Your task to perform on an android device: Go to privacy settings Image 0: 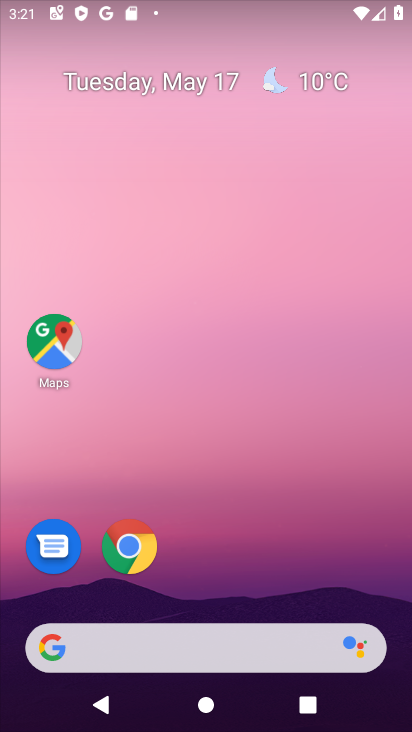
Step 0: drag from (205, 596) to (280, 188)
Your task to perform on an android device: Go to privacy settings Image 1: 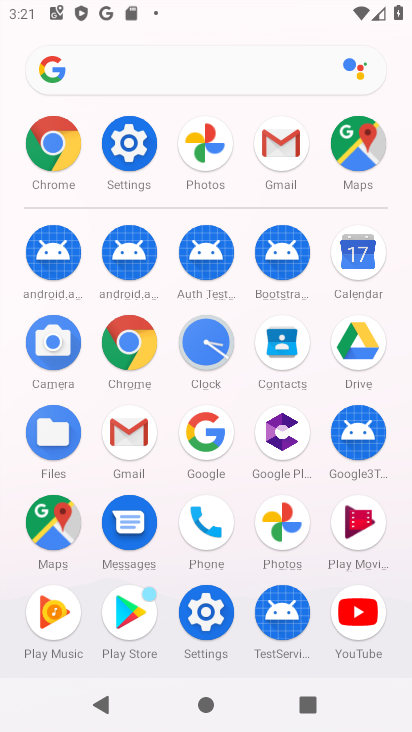
Step 1: click (207, 617)
Your task to perform on an android device: Go to privacy settings Image 2: 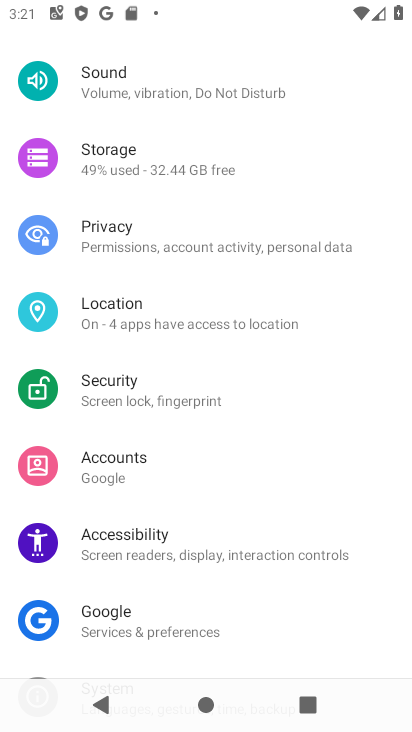
Step 2: click (156, 247)
Your task to perform on an android device: Go to privacy settings Image 3: 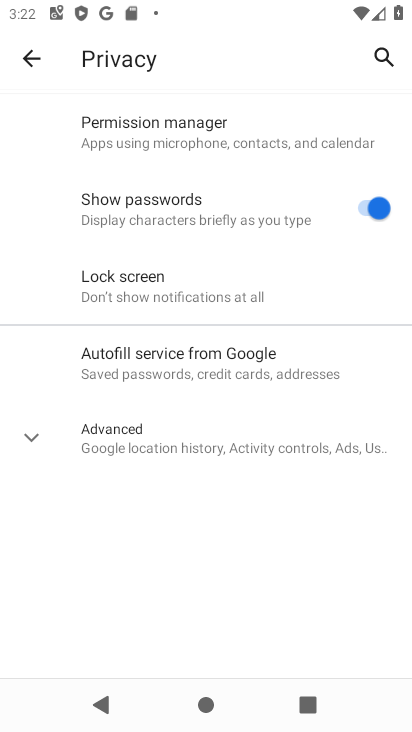
Step 3: task complete